Your task to perform on an android device: Open Google Chrome and click the shortcut for Amazon.com Image 0: 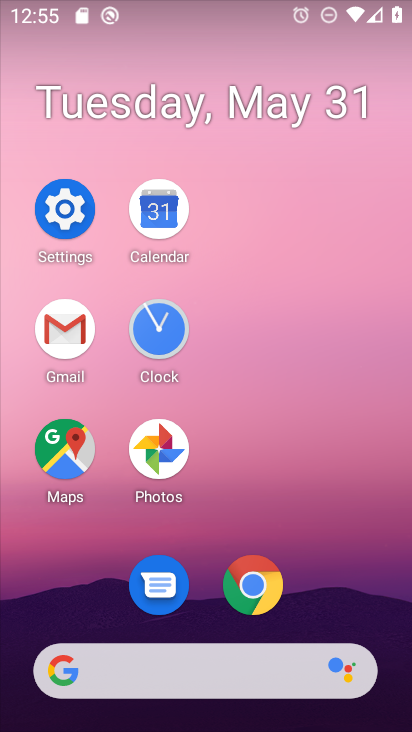
Step 0: click (237, 588)
Your task to perform on an android device: Open Google Chrome and click the shortcut for Amazon.com Image 1: 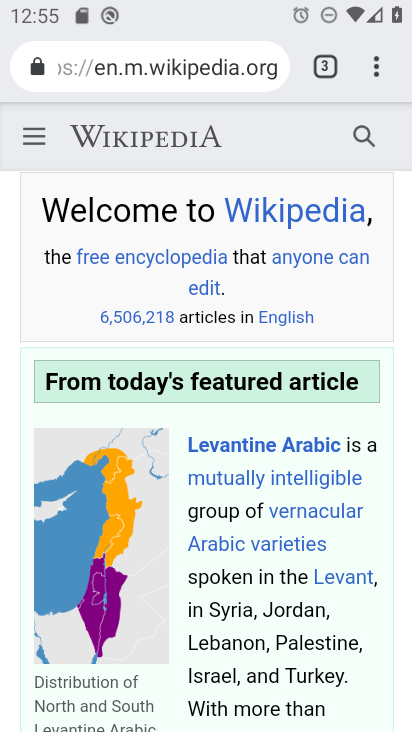
Step 1: click (323, 64)
Your task to perform on an android device: Open Google Chrome and click the shortcut for Amazon.com Image 2: 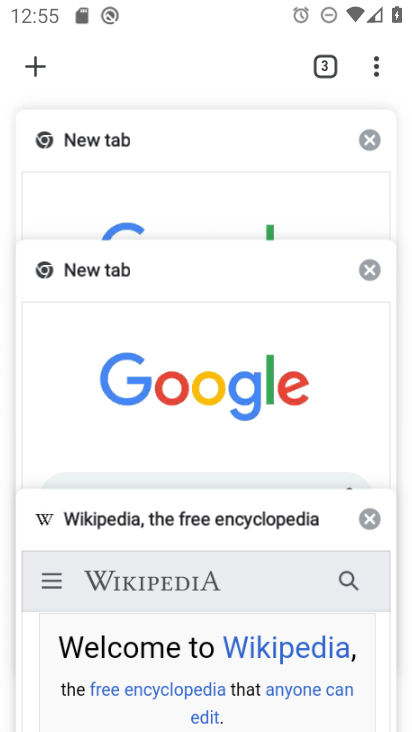
Step 2: click (44, 72)
Your task to perform on an android device: Open Google Chrome and click the shortcut for Amazon.com Image 3: 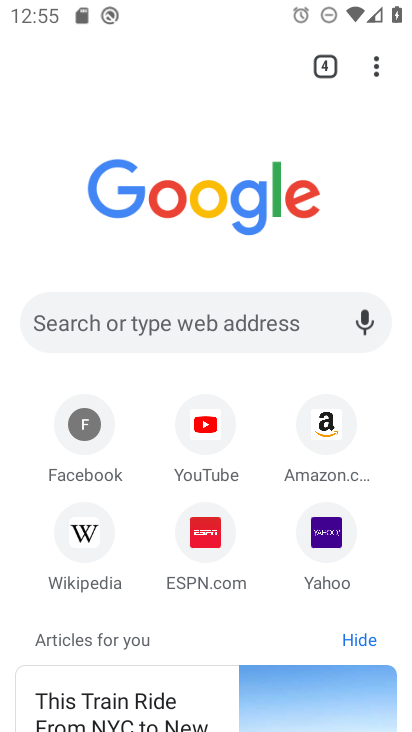
Step 3: click (342, 422)
Your task to perform on an android device: Open Google Chrome and click the shortcut for Amazon.com Image 4: 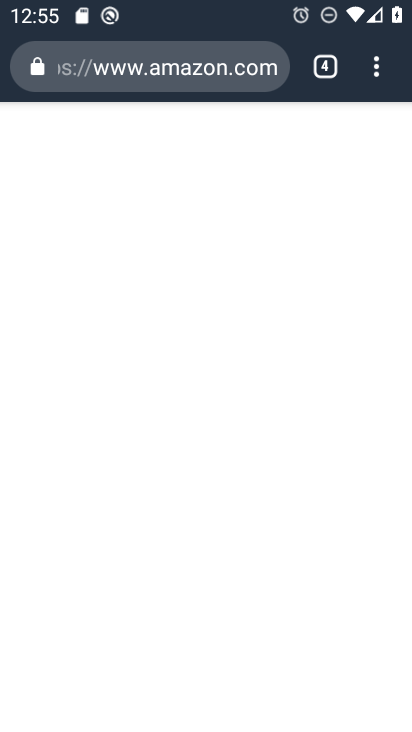
Step 4: click (376, 73)
Your task to perform on an android device: Open Google Chrome and click the shortcut for Amazon.com Image 5: 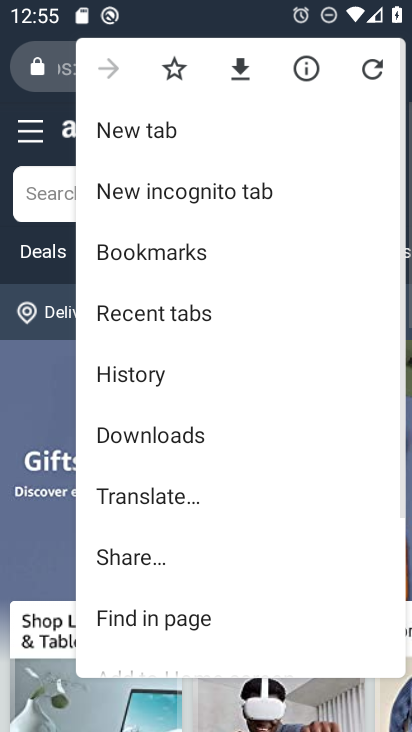
Step 5: drag from (268, 556) to (280, 276)
Your task to perform on an android device: Open Google Chrome and click the shortcut for Amazon.com Image 6: 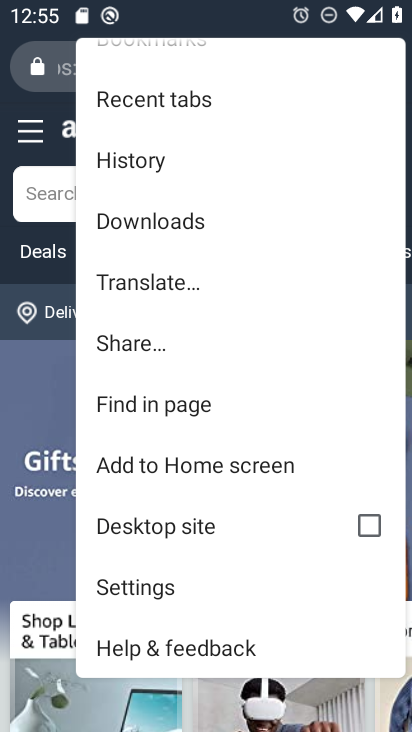
Step 6: click (210, 454)
Your task to perform on an android device: Open Google Chrome and click the shortcut for Amazon.com Image 7: 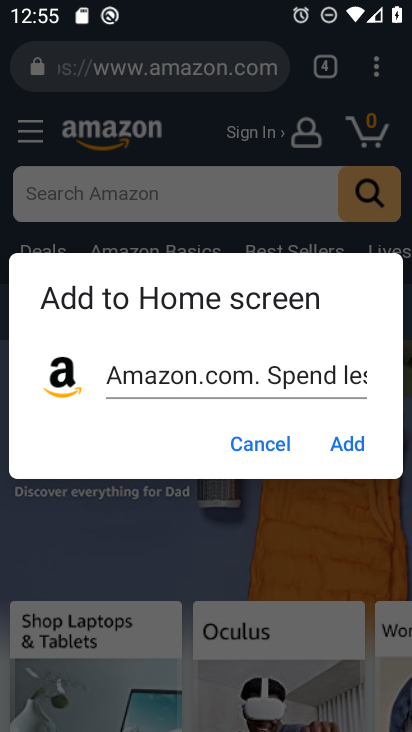
Step 7: click (342, 440)
Your task to perform on an android device: Open Google Chrome and click the shortcut for Amazon.com Image 8: 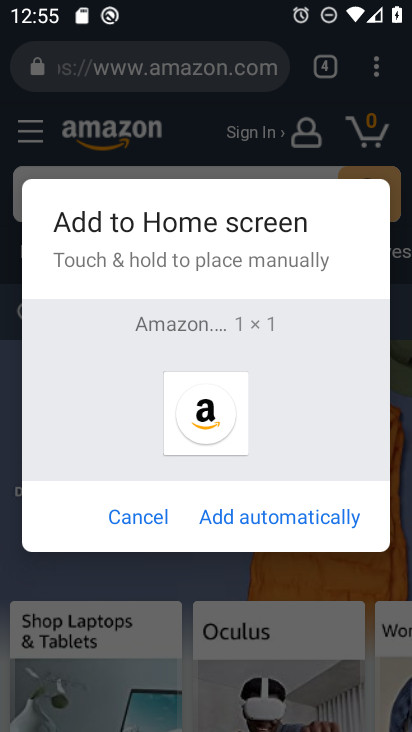
Step 8: click (357, 500)
Your task to perform on an android device: Open Google Chrome and click the shortcut for Amazon.com Image 9: 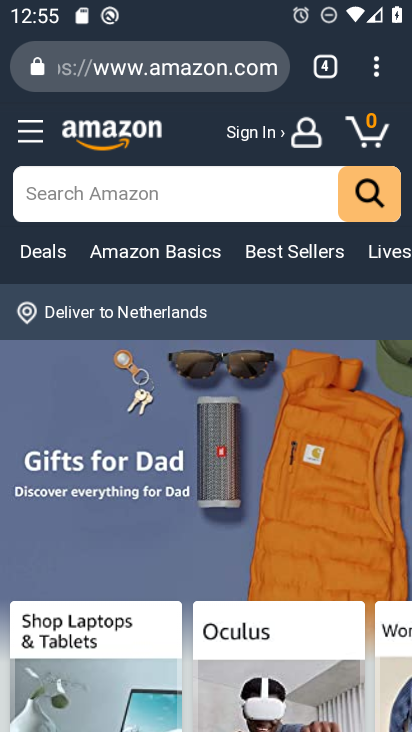
Step 9: task complete